Your task to perform on an android device: Open accessibility settings Image 0: 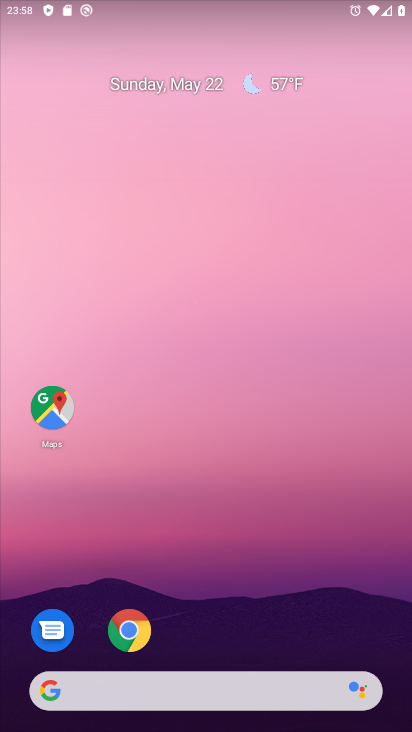
Step 0: drag from (324, 570) to (182, 67)
Your task to perform on an android device: Open accessibility settings Image 1: 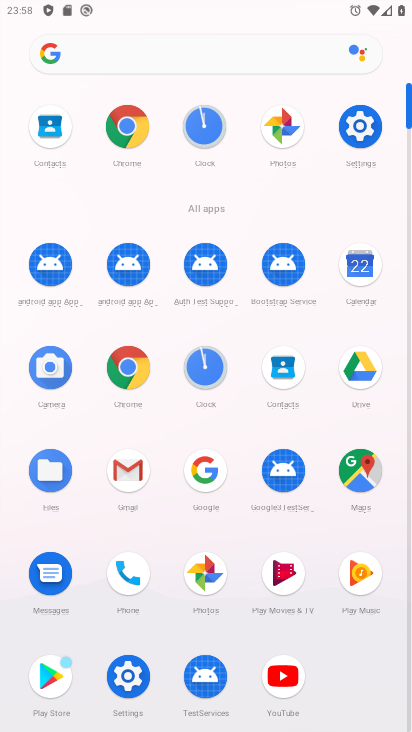
Step 1: click (368, 125)
Your task to perform on an android device: Open accessibility settings Image 2: 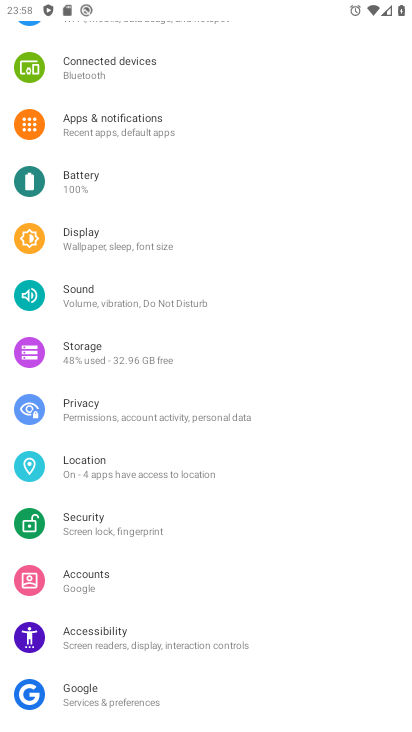
Step 2: click (179, 632)
Your task to perform on an android device: Open accessibility settings Image 3: 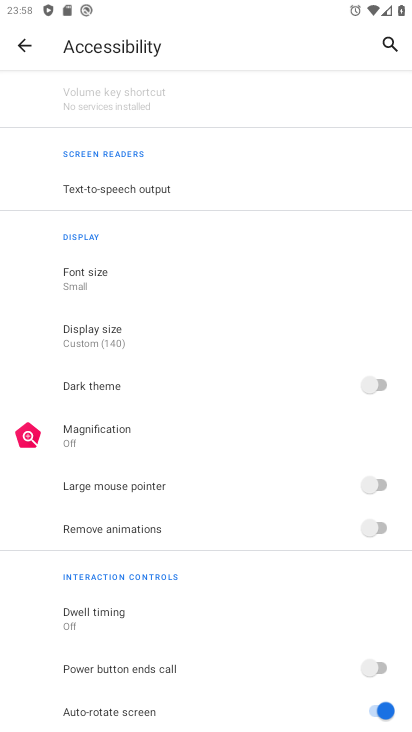
Step 3: task complete